Your task to perform on an android device: Go to Maps Image 0: 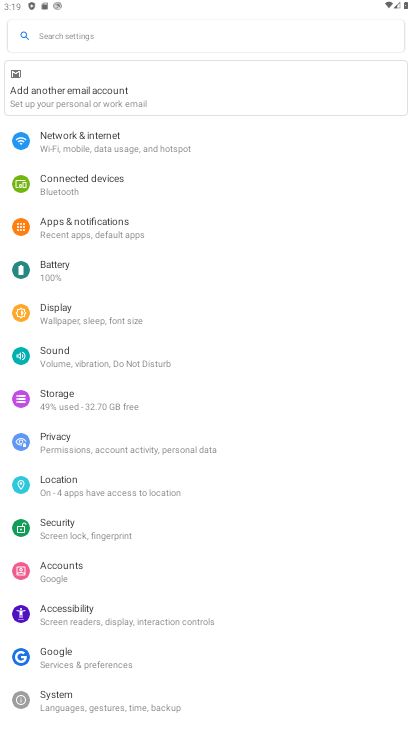
Step 0: press home button
Your task to perform on an android device: Go to Maps Image 1: 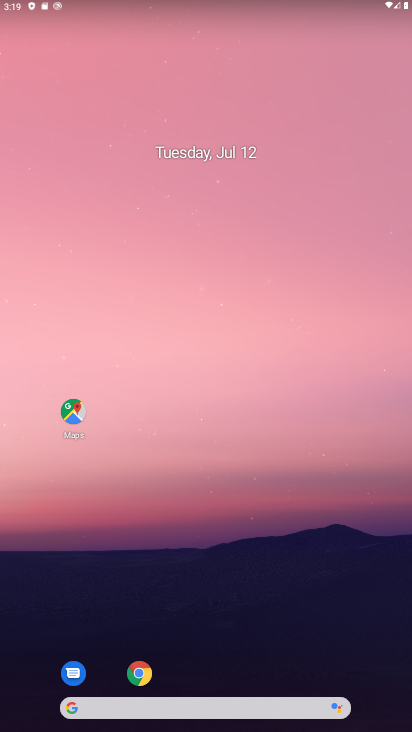
Step 1: click (73, 406)
Your task to perform on an android device: Go to Maps Image 2: 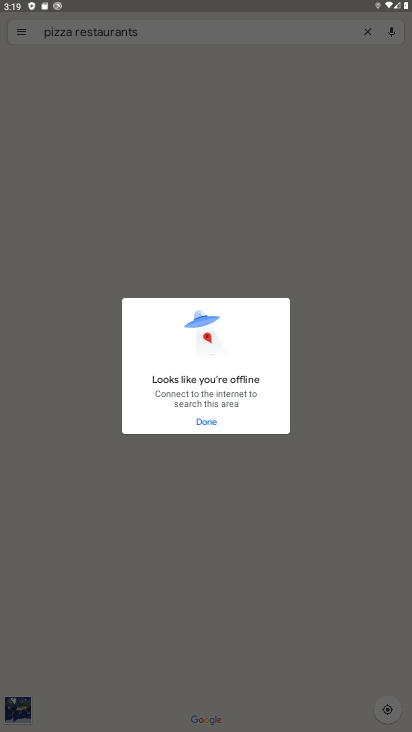
Step 2: click (201, 417)
Your task to perform on an android device: Go to Maps Image 3: 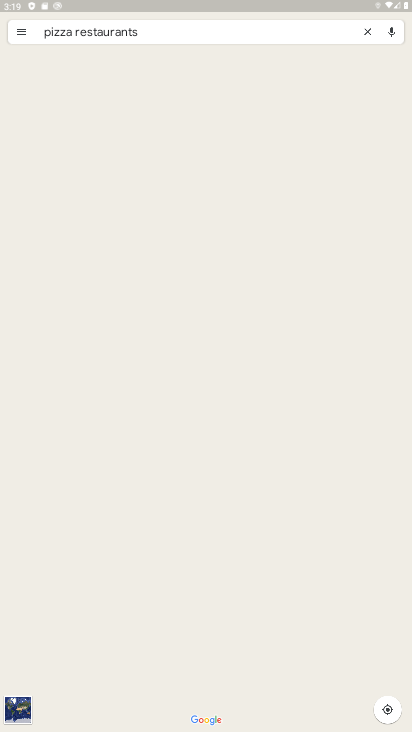
Step 3: click (366, 36)
Your task to perform on an android device: Go to Maps Image 4: 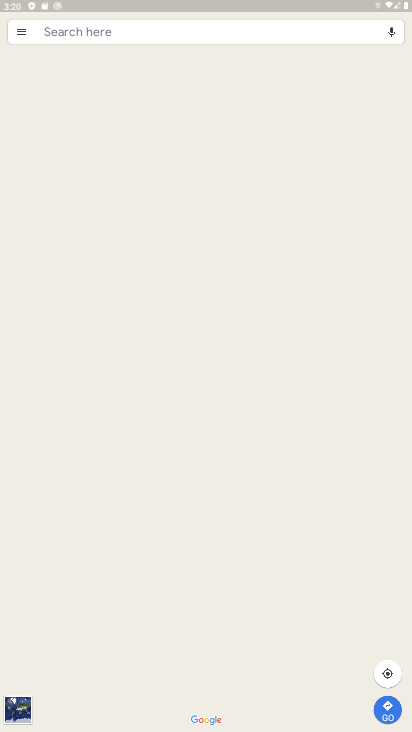
Step 4: task complete